Your task to perform on an android device: move a message to another label in the gmail app Image 0: 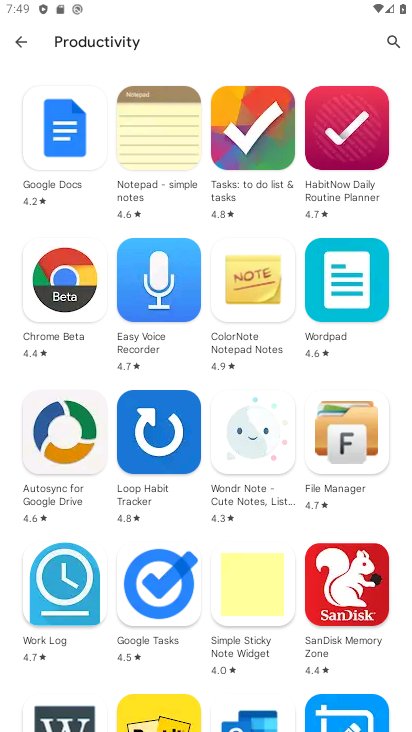
Step 0: press home button
Your task to perform on an android device: move a message to another label in the gmail app Image 1: 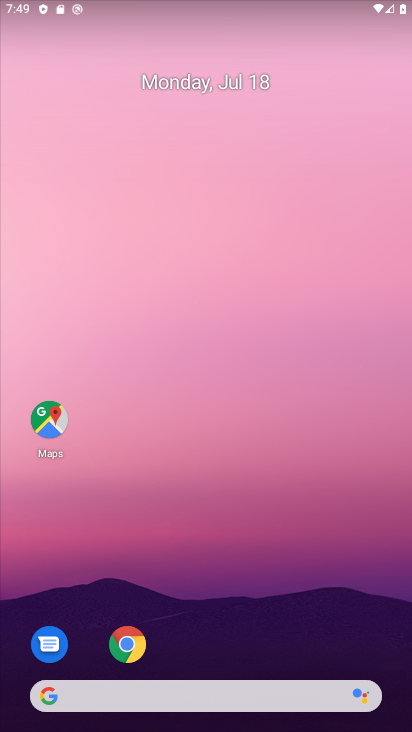
Step 1: drag from (251, 0) to (166, 15)
Your task to perform on an android device: move a message to another label in the gmail app Image 2: 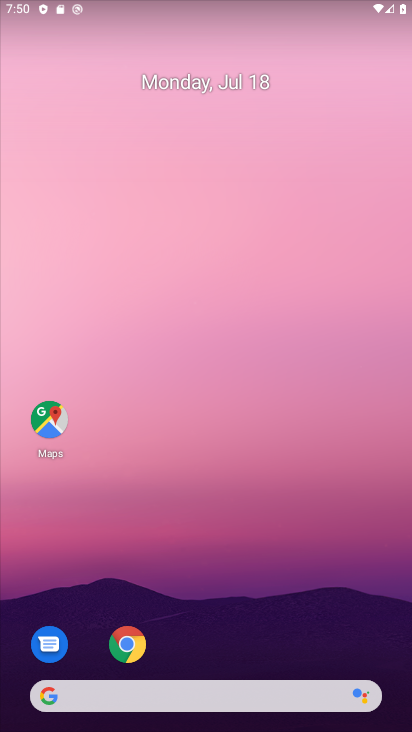
Step 2: drag from (227, 483) to (260, 38)
Your task to perform on an android device: move a message to another label in the gmail app Image 3: 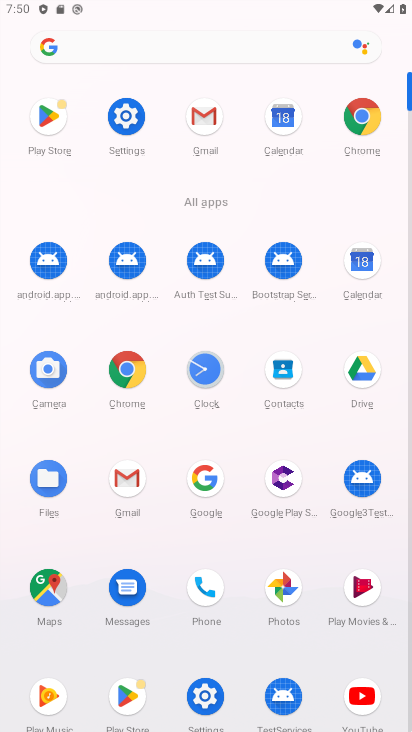
Step 3: click (204, 118)
Your task to perform on an android device: move a message to another label in the gmail app Image 4: 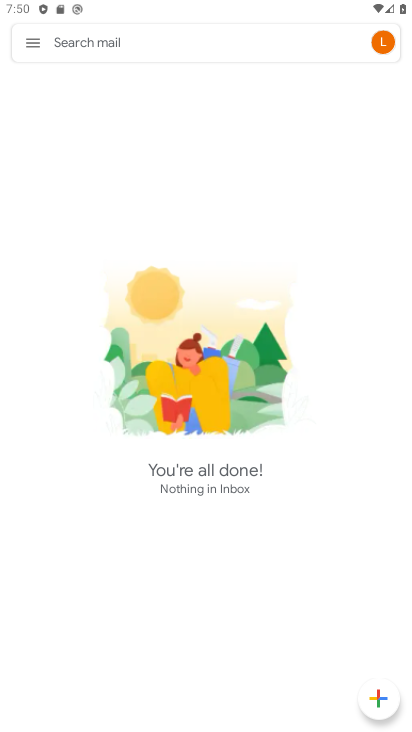
Step 4: task complete